Your task to perform on an android device: Go to CNN.com Image 0: 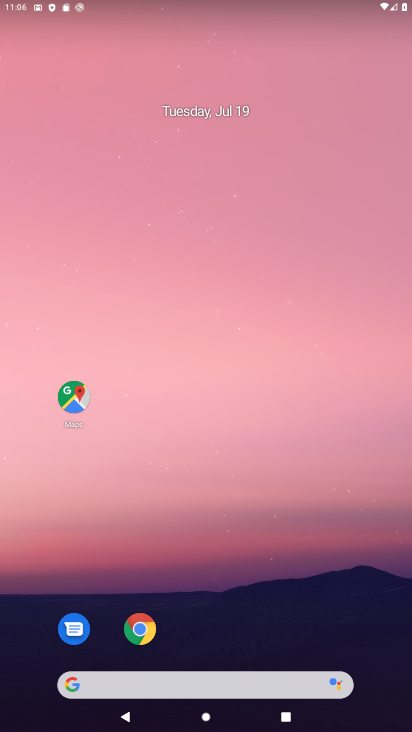
Step 0: drag from (252, 565) to (20, 34)
Your task to perform on an android device: Go to CNN.com Image 1: 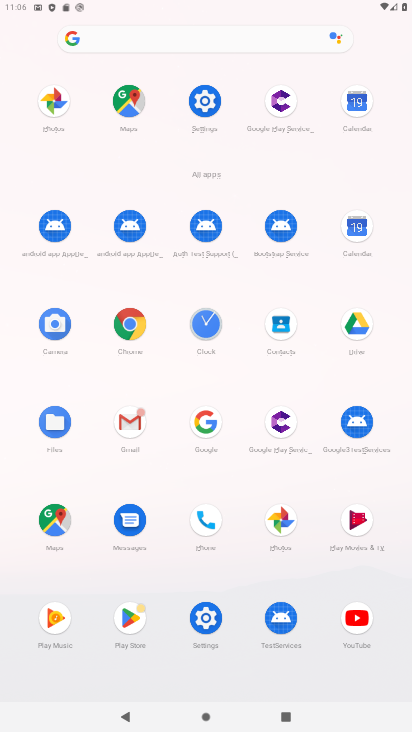
Step 1: click (123, 332)
Your task to perform on an android device: Go to CNN.com Image 2: 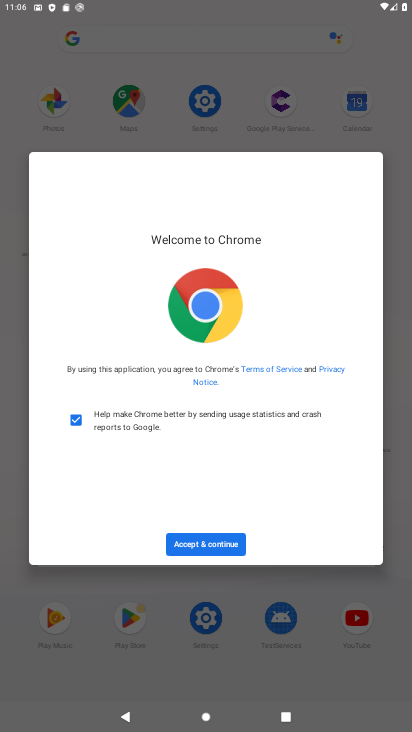
Step 2: click (193, 544)
Your task to perform on an android device: Go to CNN.com Image 3: 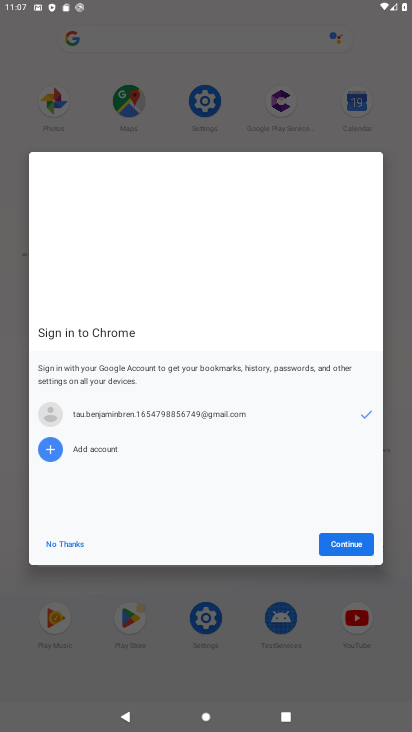
Step 3: click (52, 550)
Your task to perform on an android device: Go to CNN.com Image 4: 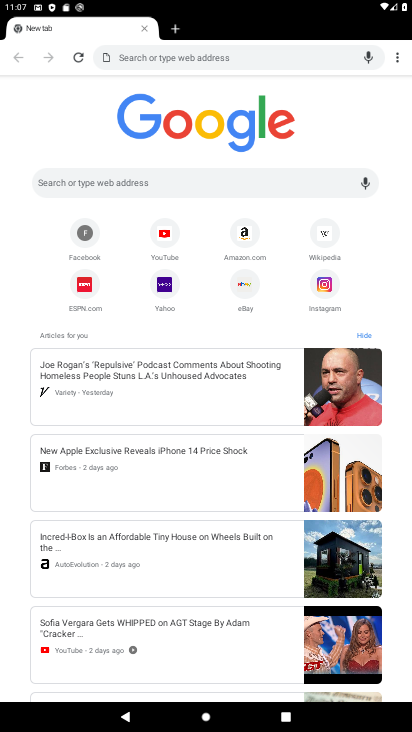
Step 4: click (112, 186)
Your task to perform on an android device: Go to CNN.com Image 5: 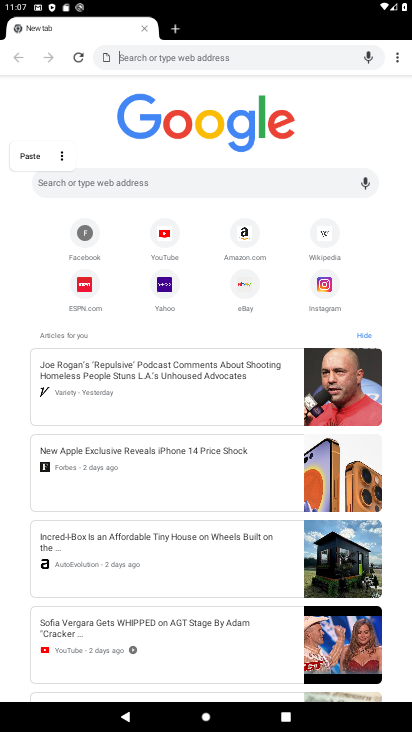
Step 5: click (135, 180)
Your task to perform on an android device: Go to CNN.com Image 6: 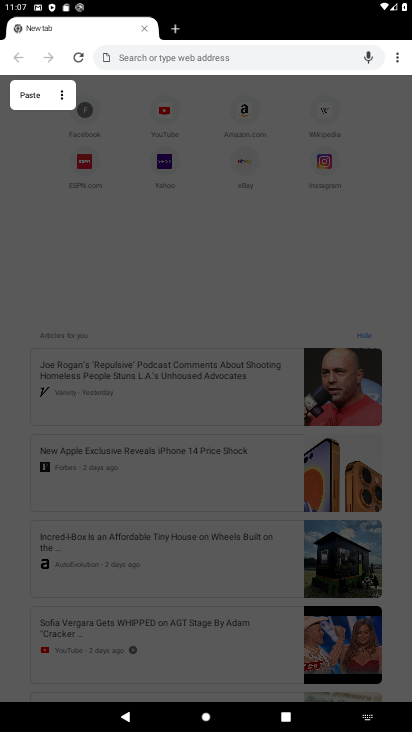
Step 6: type "CNN.com"
Your task to perform on an android device: Go to CNN.com Image 7: 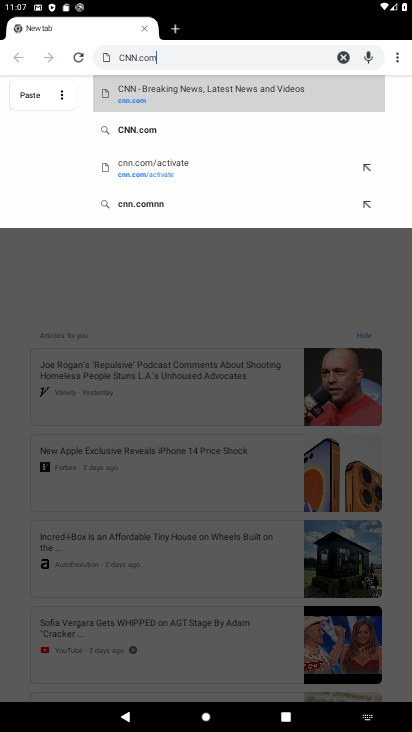
Step 7: press enter
Your task to perform on an android device: Go to CNN.com Image 8: 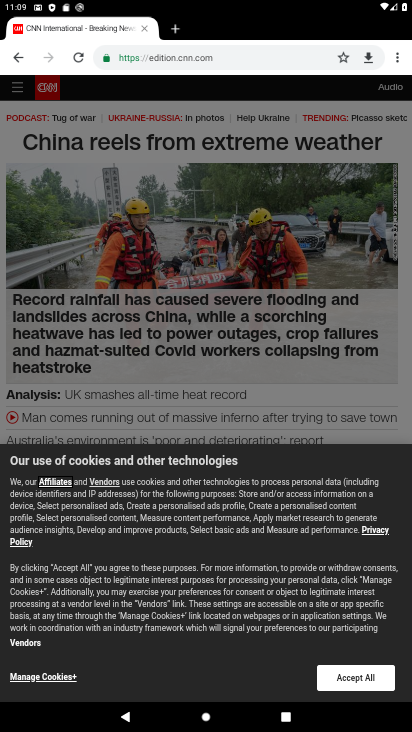
Step 8: task complete